Your task to perform on an android device: turn off airplane mode Image 0: 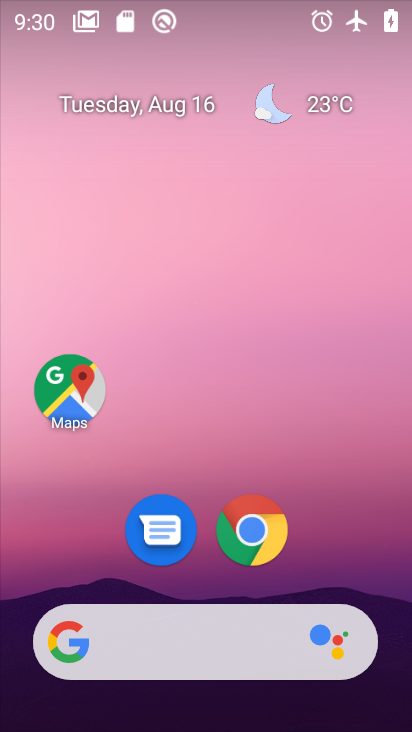
Step 0: drag from (358, 550) to (370, 195)
Your task to perform on an android device: turn off airplane mode Image 1: 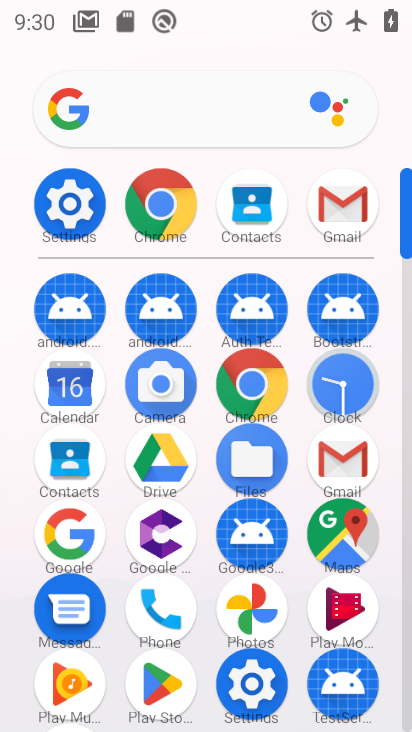
Step 1: click (262, 679)
Your task to perform on an android device: turn off airplane mode Image 2: 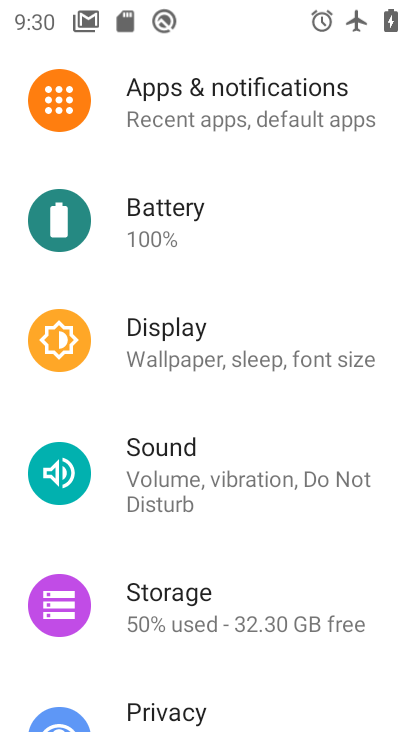
Step 2: drag from (288, 178) to (236, 669)
Your task to perform on an android device: turn off airplane mode Image 3: 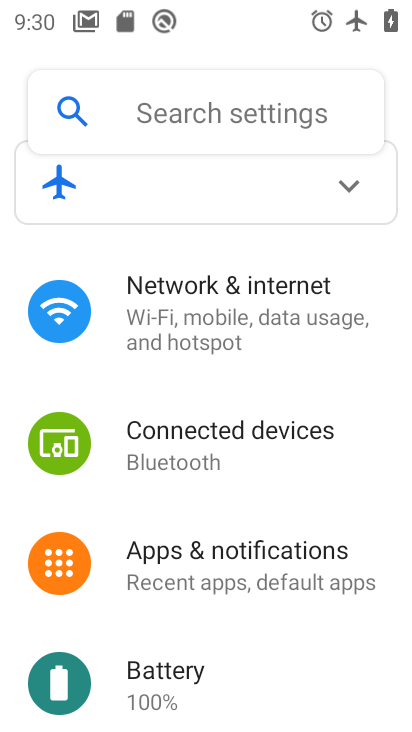
Step 3: click (238, 315)
Your task to perform on an android device: turn off airplane mode Image 4: 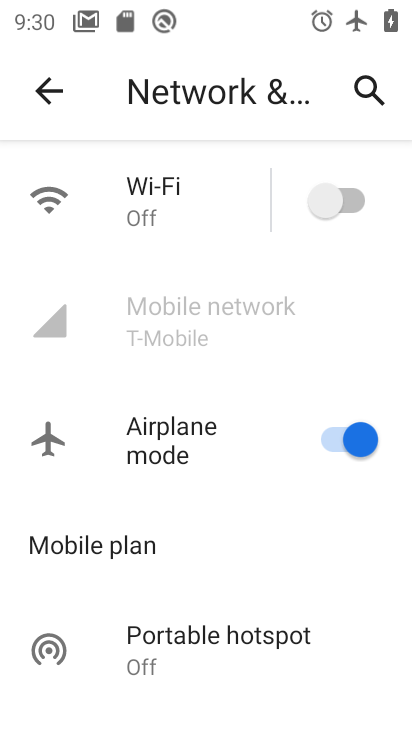
Step 4: click (324, 438)
Your task to perform on an android device: turn off airplane mode Image 5: 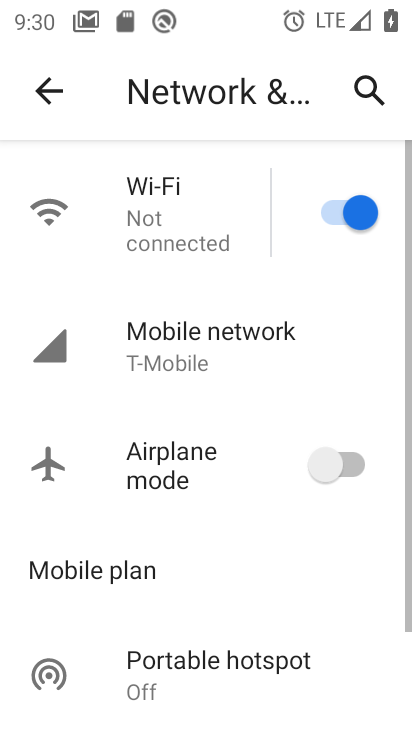
Step 5: task complete